Your task to perform on an android device: Is it going to rain this weekend? Image 0: 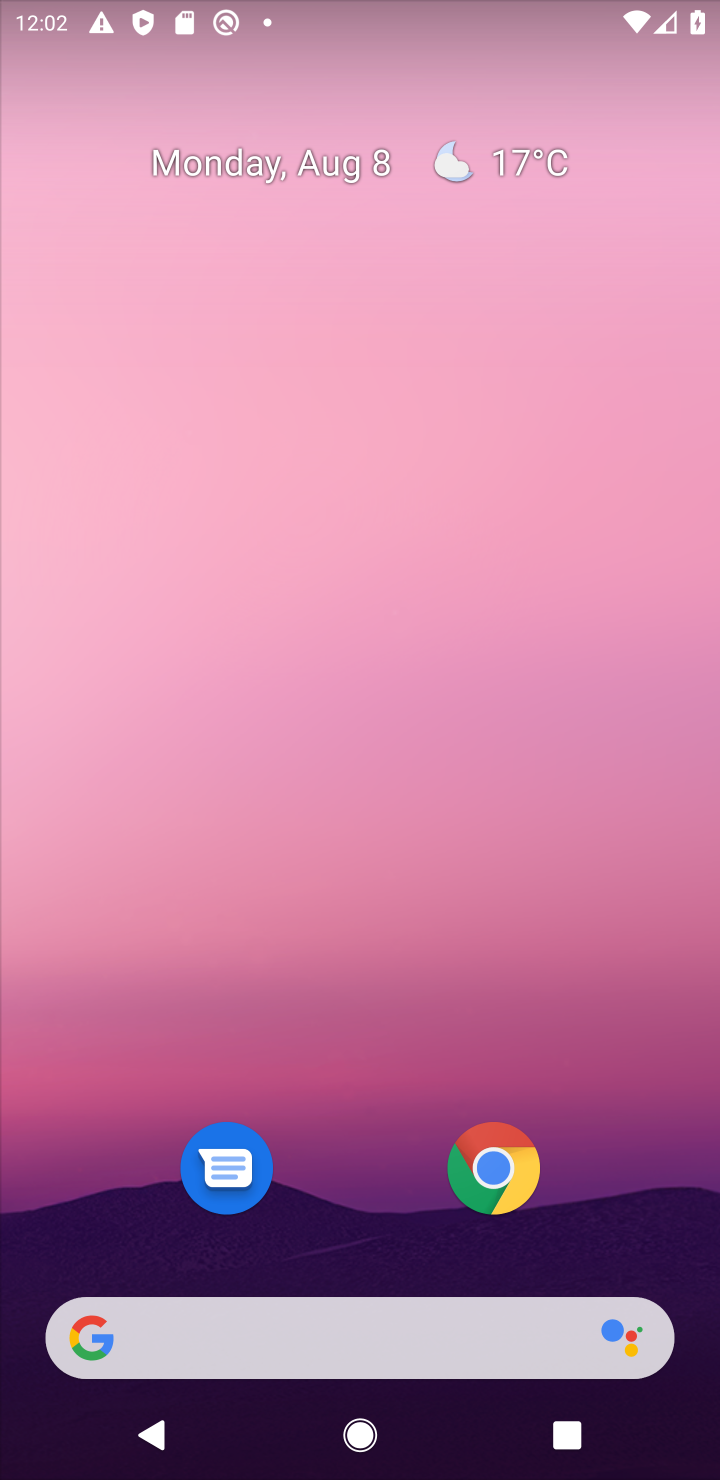
Step 0: click (170, 1335)
Your task to perform on an android device: Is it going to rain this weekend? Image 1: 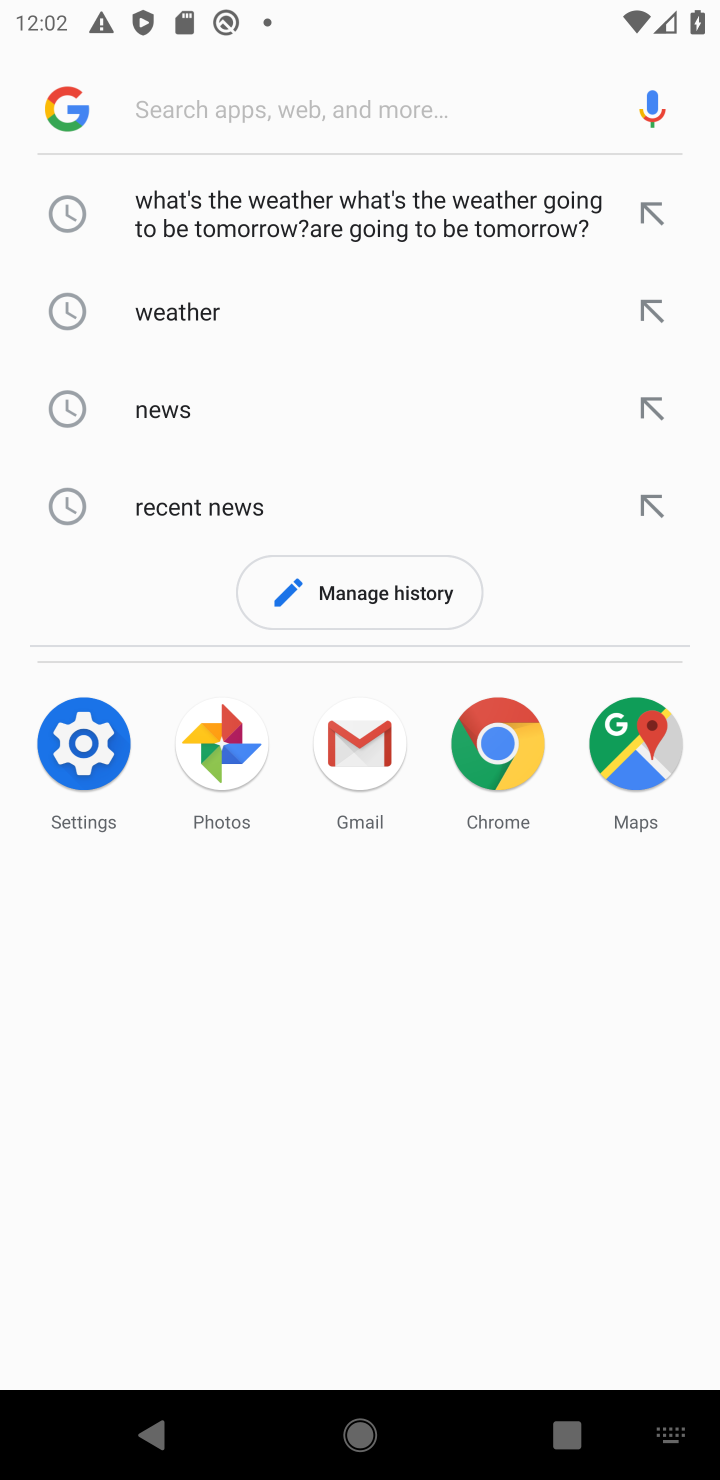
Step 1: type "Is it going to rain this weekend?"
Your task to perform on an android device: Is it going to rain this weekend? Image 2: 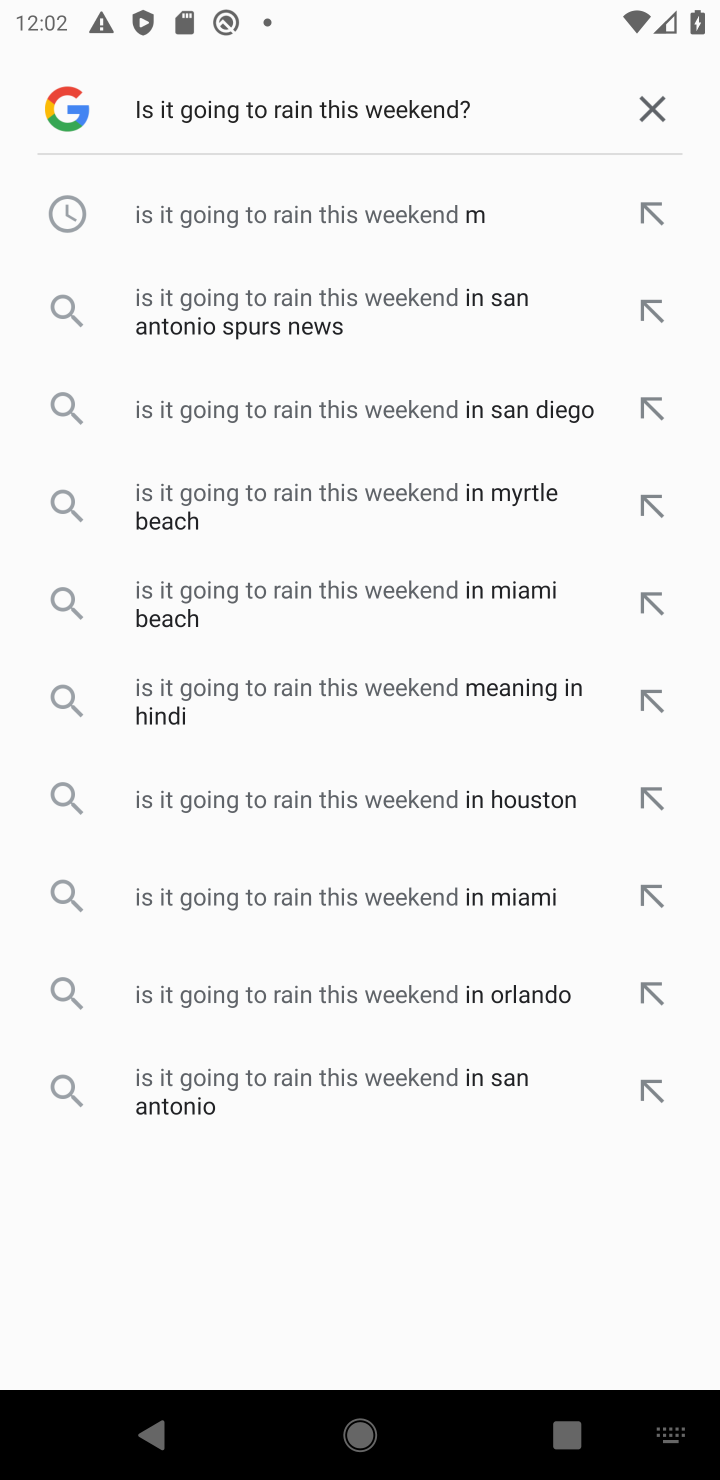
Step 2: type ""
Your task to perform on an android device: Is it going to rain this weekend? Image 3: 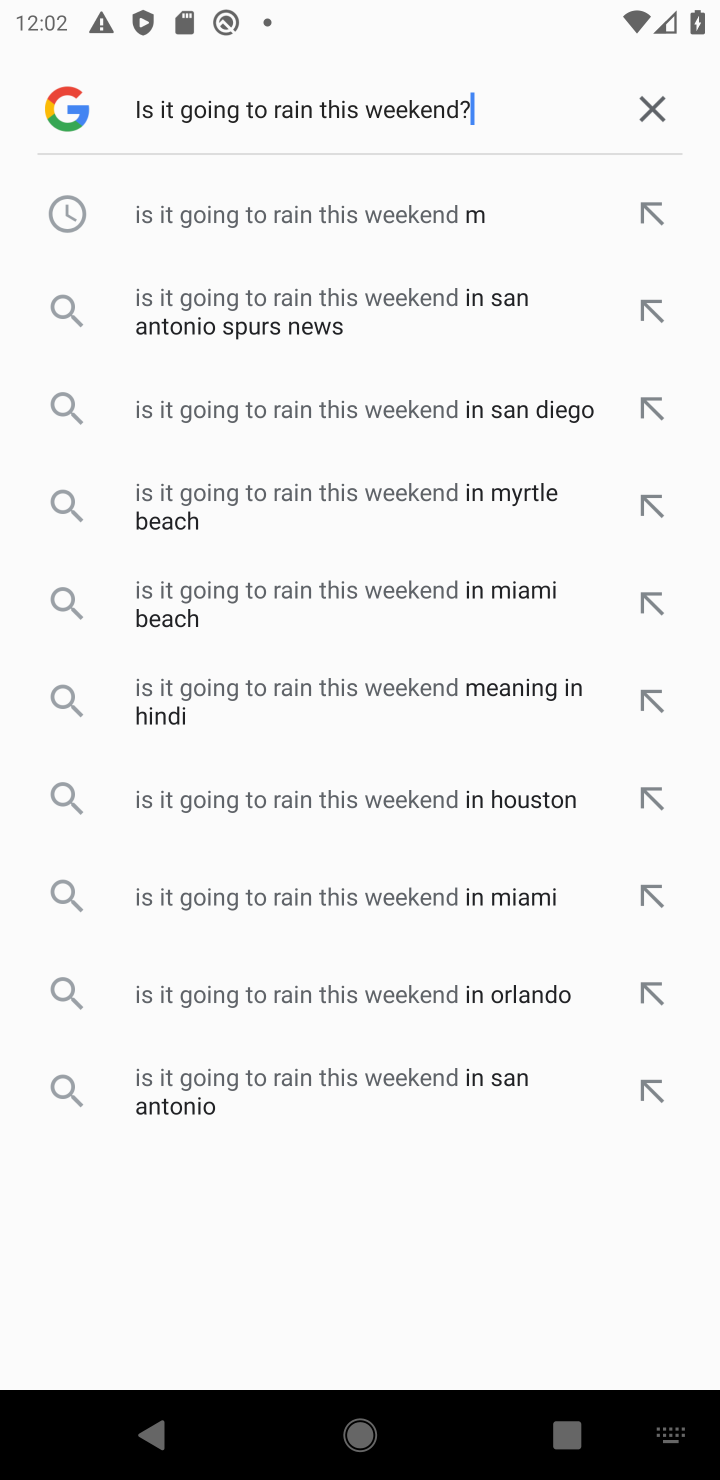
Step 3: type ""
Your task to perform on an android device: Is it going to rain this weekend? Image 4: 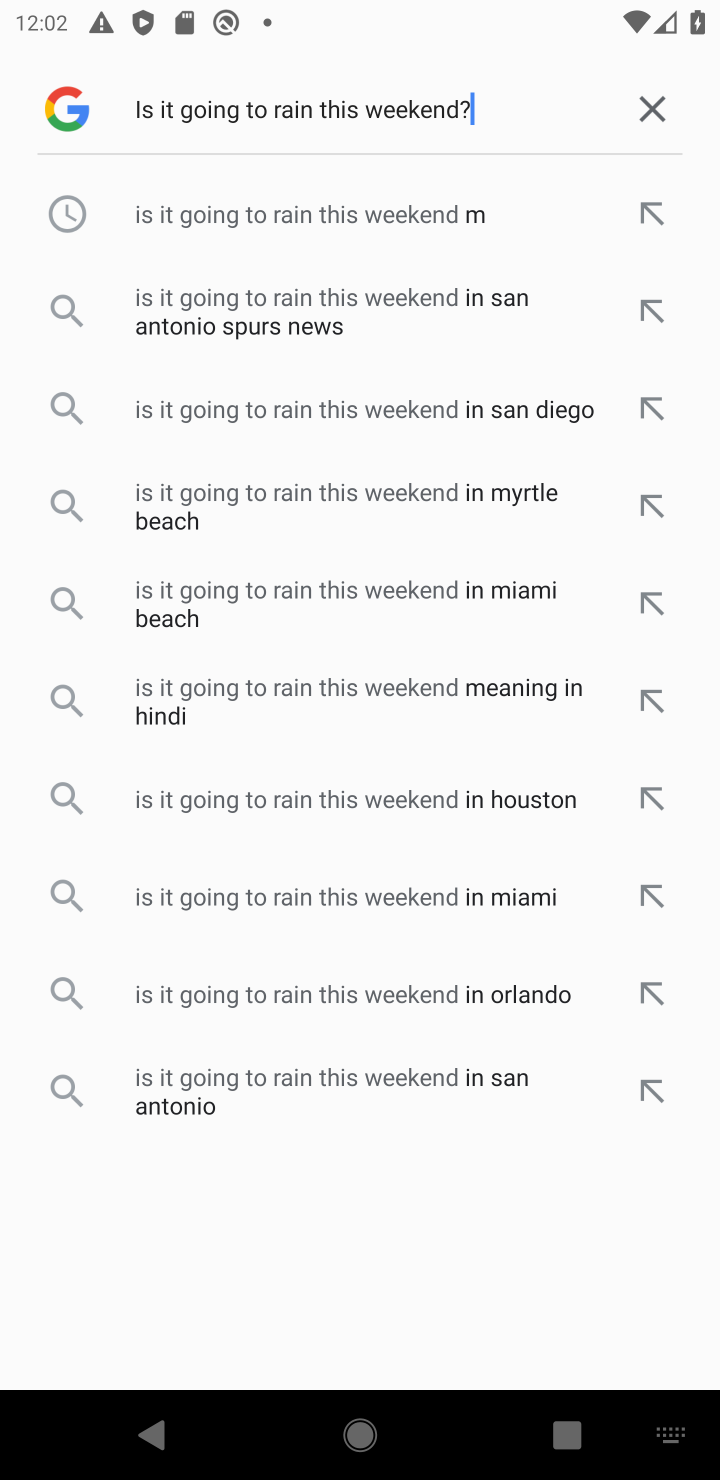
Step 4: task complete